Your task to perform on an android device: set the timer Image 0: 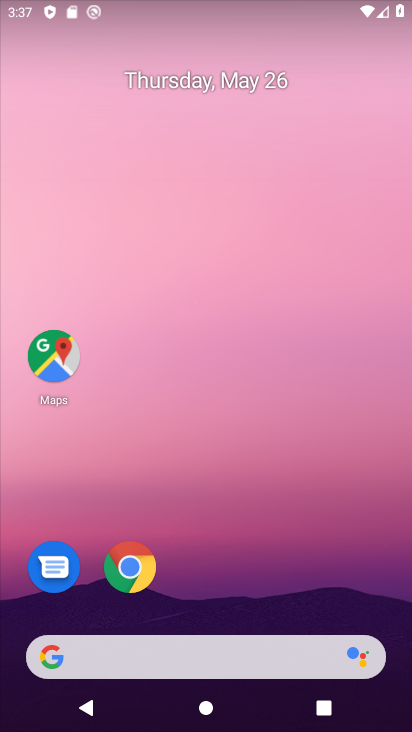
Step 0: drag from (255, 614) to (344, 199)
Your task to perform on an android device: set the timer Image 1: 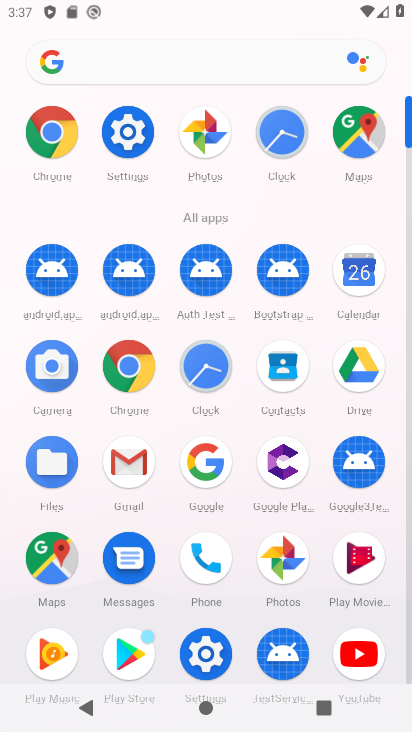
Step 1: click (219, 387)
Your task to perform on an android device: set the timer Image 2: 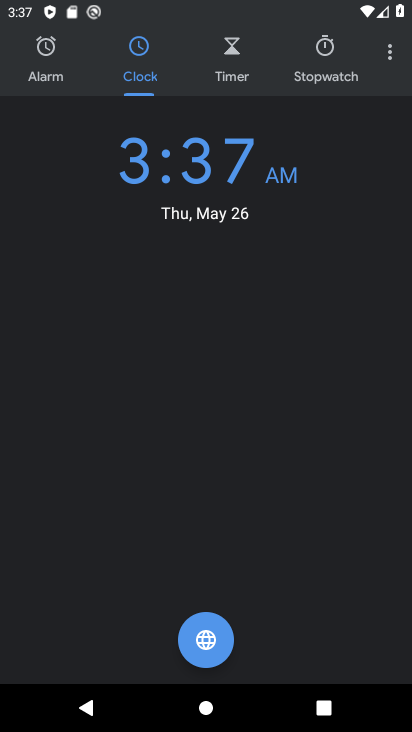
Step 2: click (236, 40)
Your task to perform on an android device: set the timer Image 3: 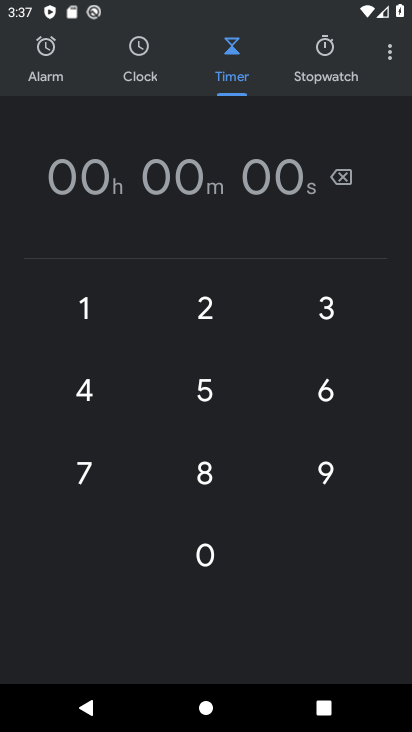
Step 3: click (204, 308)
Your task to perform on an android device: set the timer Image 4: 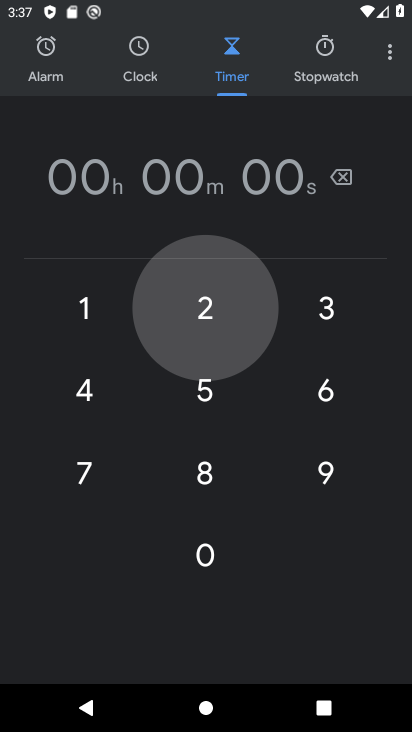
Step 4: click (204, 308)
Your task to perform on an android device: set the timer Image 5: 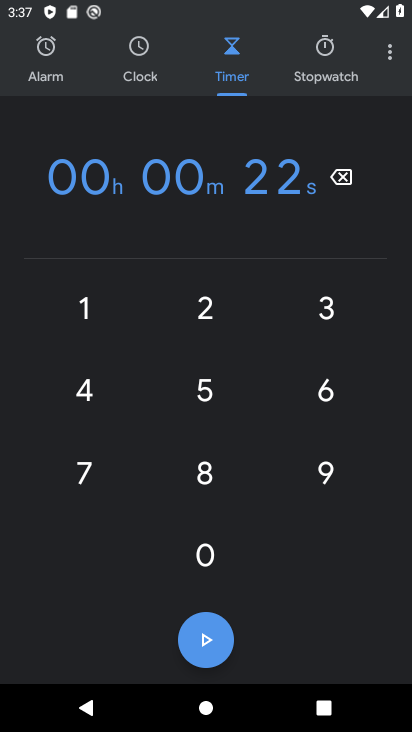
Step 5: click (204, 308)
Your task to perform on an android device: set the timer Image 6: 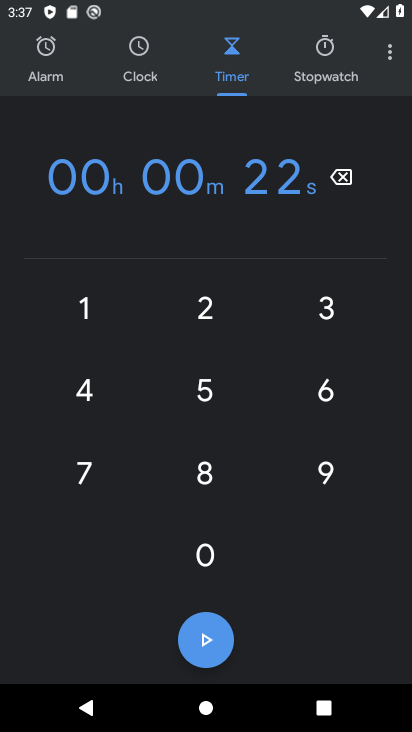
Step 6: click (204, 308)
Your task to perform on an android device: set the timer Image 7: 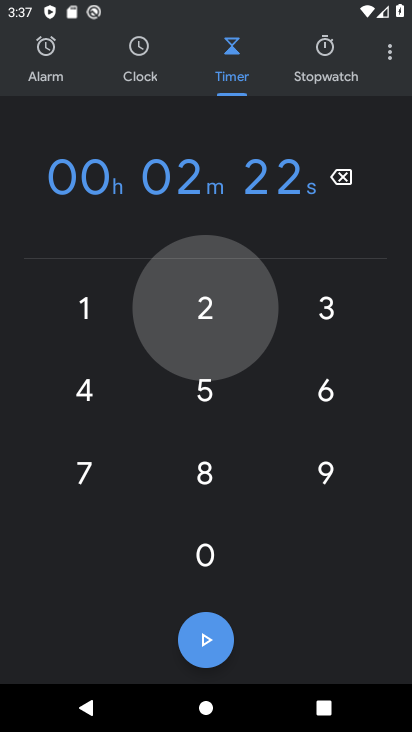
Step 7: click (204, 308)
Your task to perform on an android device: set the timer Image 8: 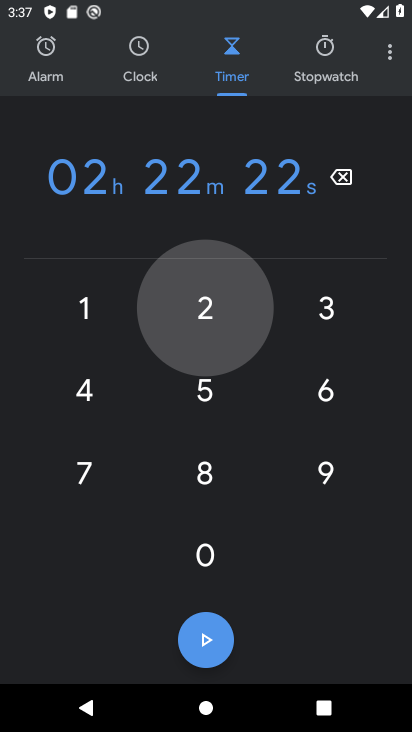
Step 8: click (204, 308)
Your task to perform on an android device: set the timer Image 9: 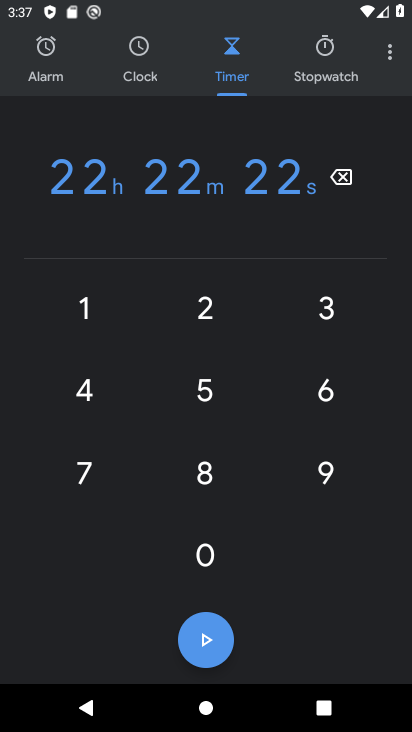
Step 9: click (223, 658)
Your task to perform on an android device: set the timer Image 10: 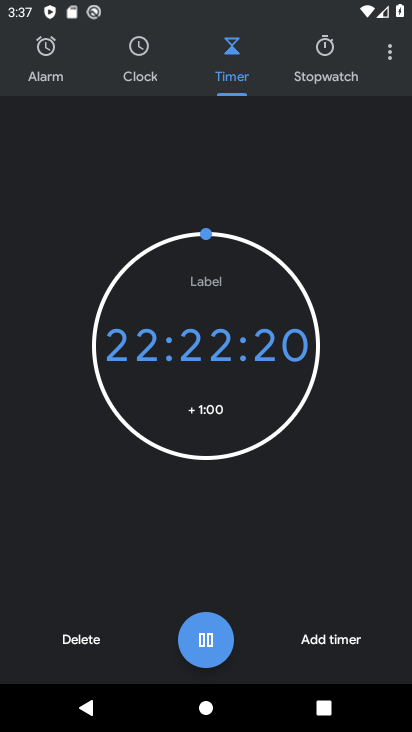
Step 10: task complete